Your task to perform on an android device: turn off translation in the chrome app Image 0: 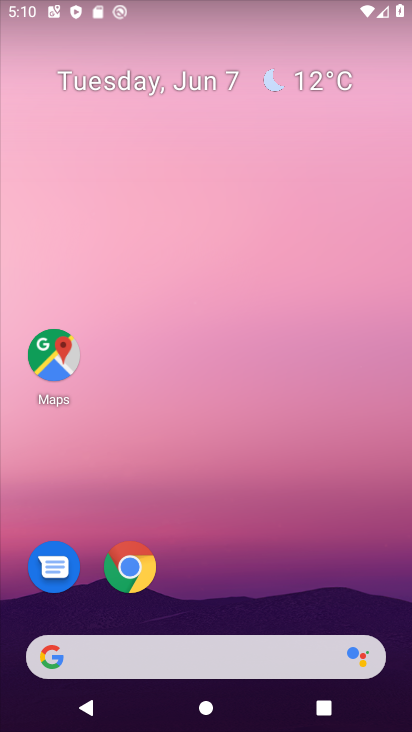
Step 0: drag from (221, 554) to (176, 34)
Your task to perform on an android device: turn off translation in the chrome app Image 1: 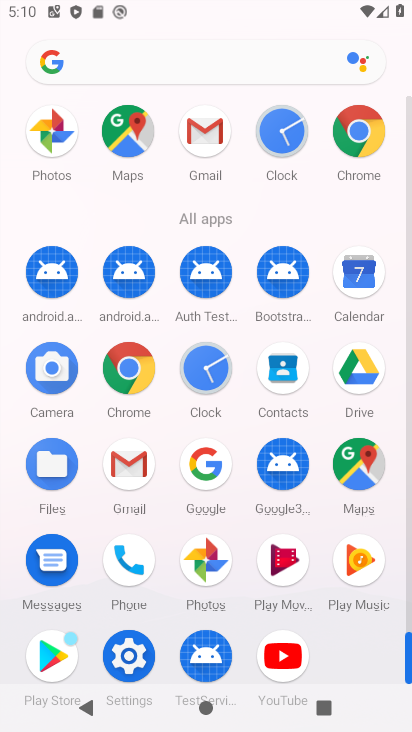
Step 1: click (127, 362)
Your task to perform on an android device: turn off translation in the chrome app Image 2: 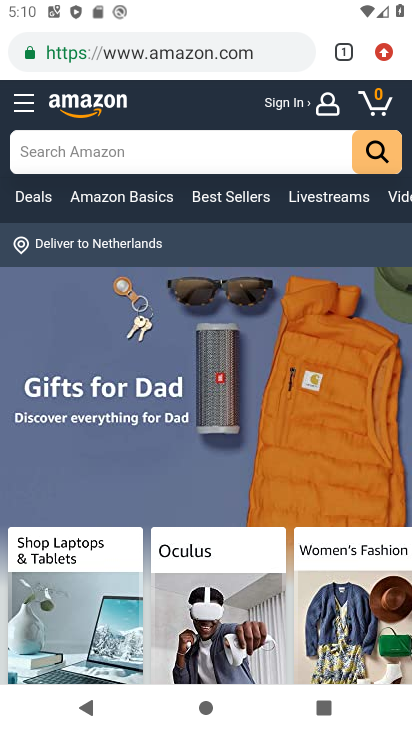
Step 2: drag from (387, 48) to (246, 607)
Your task to perform on an android device: turn off translation in the chrome app Image 3: 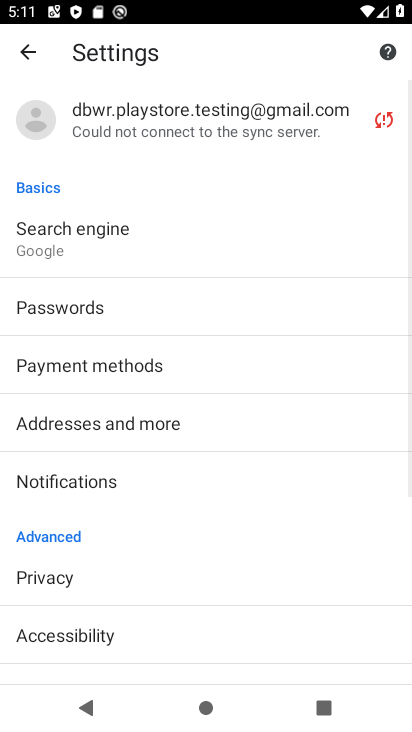
Step 3: drag from (177, 611) to (206, 215)
Your task to perform on an android device: turn off translation in the chrome app Image 4: 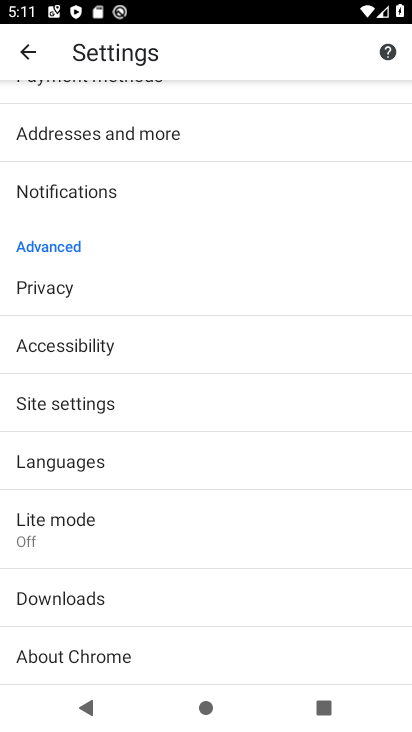
Step 4: click (109, 450)
Your task to perform on an android device: turn off translation in the chrome app Image 5: 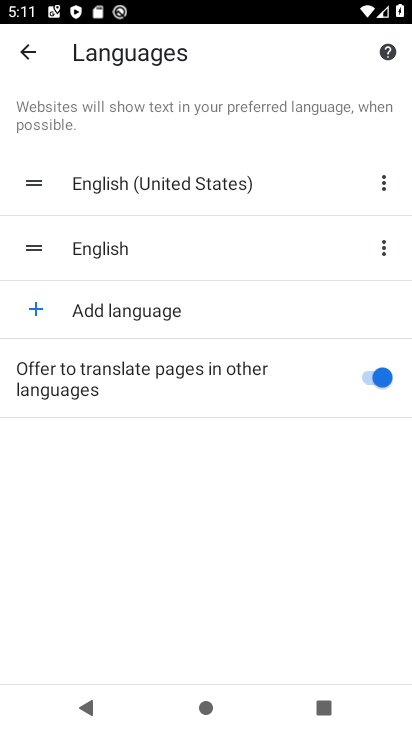
Step 5: click (373, 369)
Your task to perform on an android device: turn off translation in the chrome app Image 6: 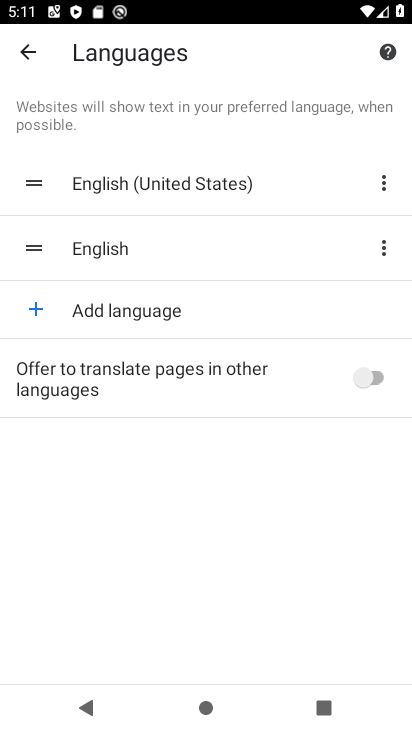
Step 6: task complete